Your task to perform on an android device: Open the map Image 0: 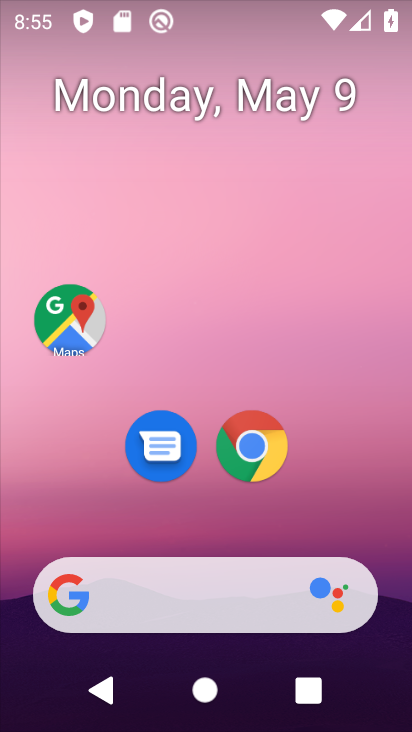
Step 0: click (34, 311)
Your task to perform on an android device: Open the map Image 1: 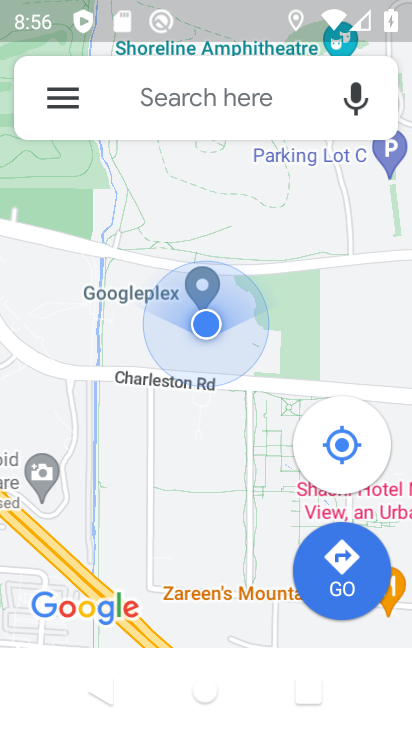
Step 1: task complete